Your task to perform on an android device: Open Amazon Image 0: 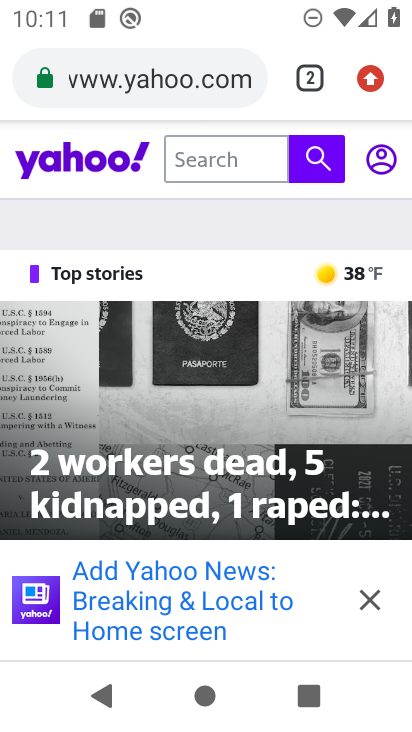
Step 0: click (309, 77)
Your task to perform on an android device: Open Amazon Image 1: 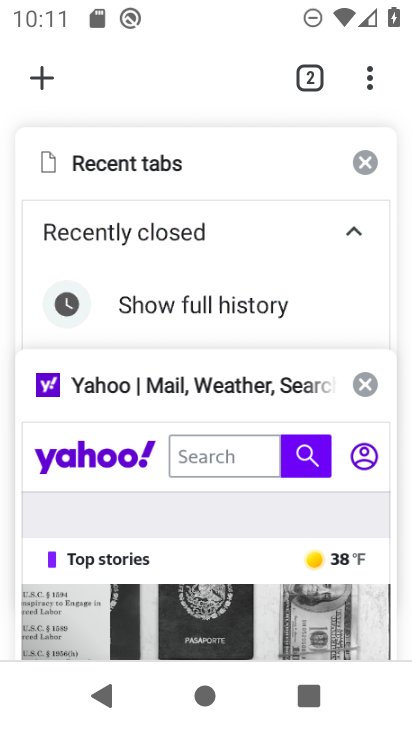
Step 1: click (39, 74)
Your task to perform on an android device: Open Amazon Image 2: 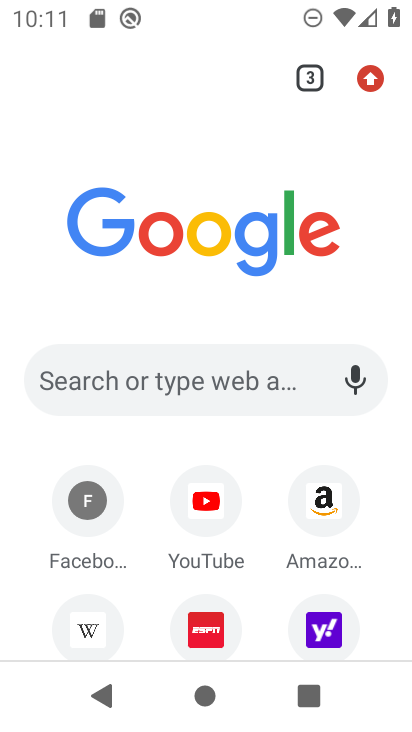
Step 2: click (346, 494)
Your task to perform on an android device: Open Amazon Image 3: 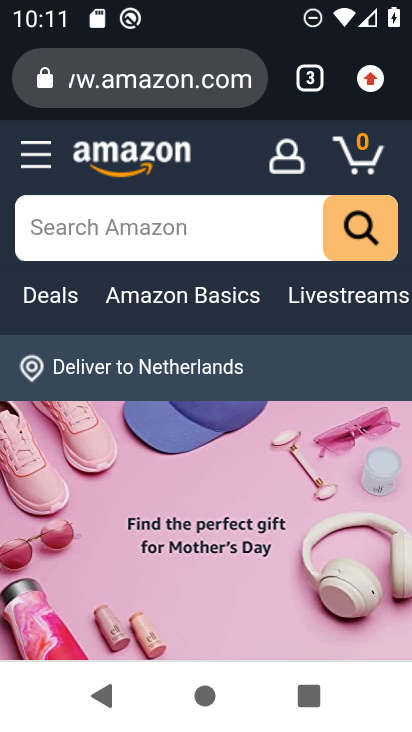
Step 3: task complete